Your task to perform on an android device: search for starred emails in the gmail app Image 0: 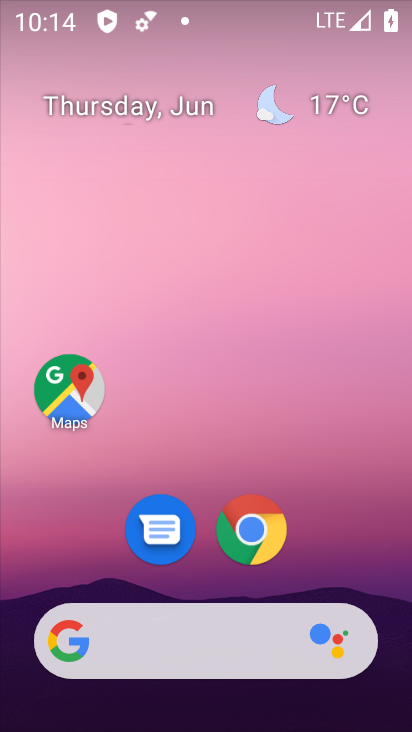
Step 0: press home button
Your task to perform on an android device: search for starred emails in the gmail app Image 1: 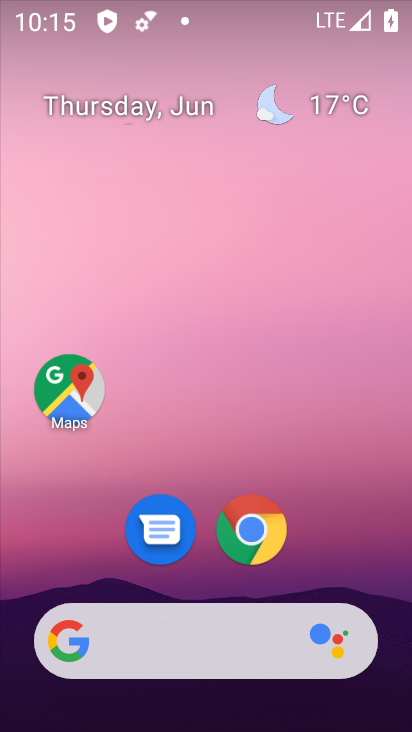
Step 1: drag from (332, 544) to (308, 18)
Your task to perform on an android device: search for starred emails in the gmail app Image 2: 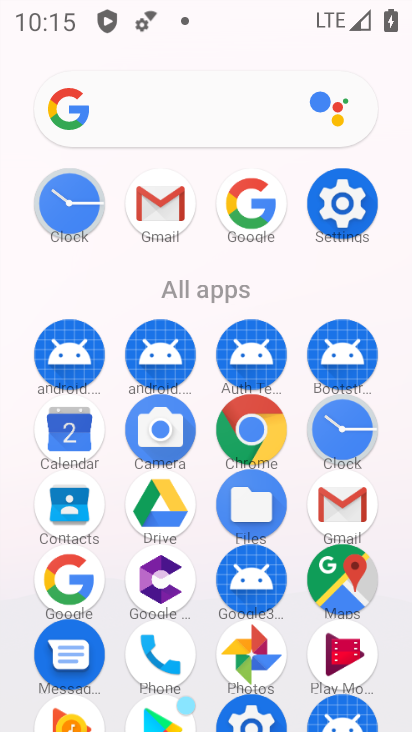
Step 2: click (144, 198)
Your task to perform on an android device: search for starred emails in the gmail app Image 3: 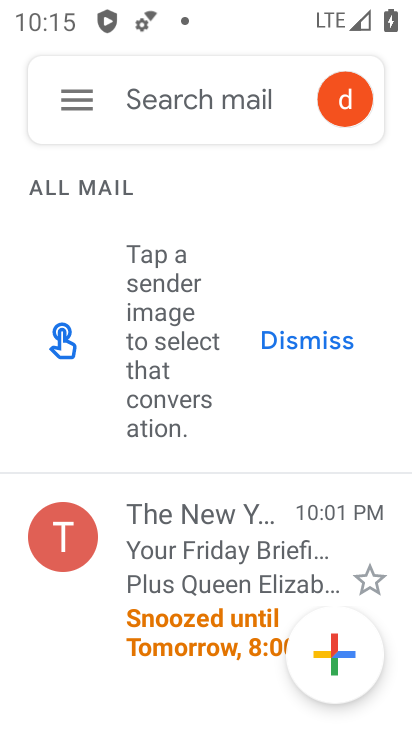
Step 3: click (73, 96)
Your task to perform on an android device: search for starred emails in the gmail app Image 4: 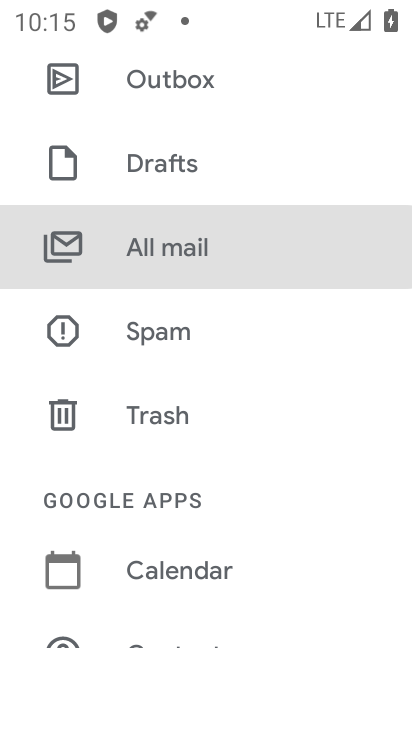
Step 4: drag from (158, 191) to (264, 632)
Your task to perform on an android device: search for starred emails in the gmail app Image 5: 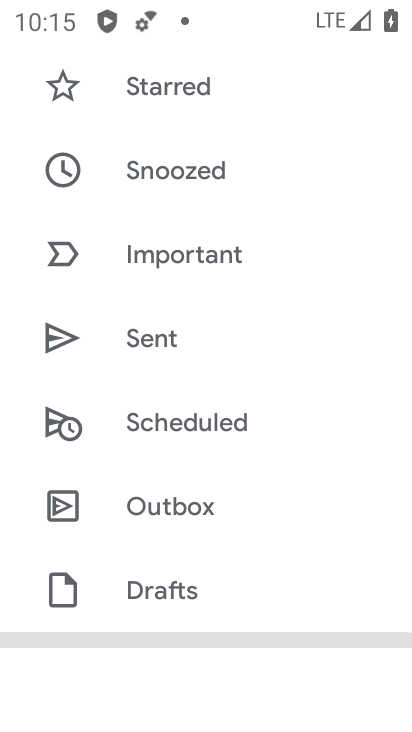
Step 5: click (178, 90)
Your task to perform on an android device: search for starred emails in the gmail app Image 6: 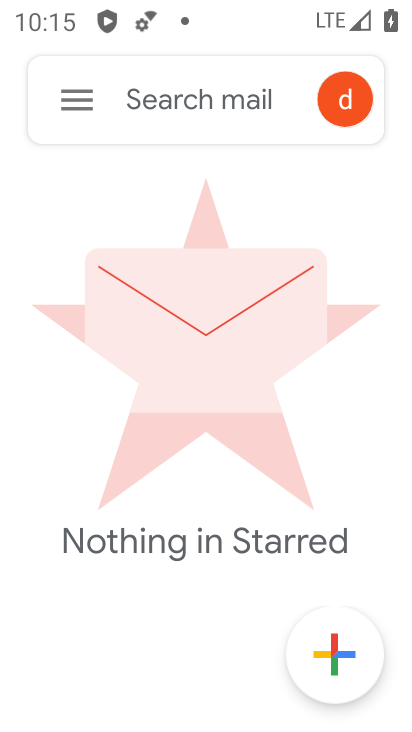
Step 6: task complete